Your task to perform on an android device: see sites visited before in the chrome app Image 0: 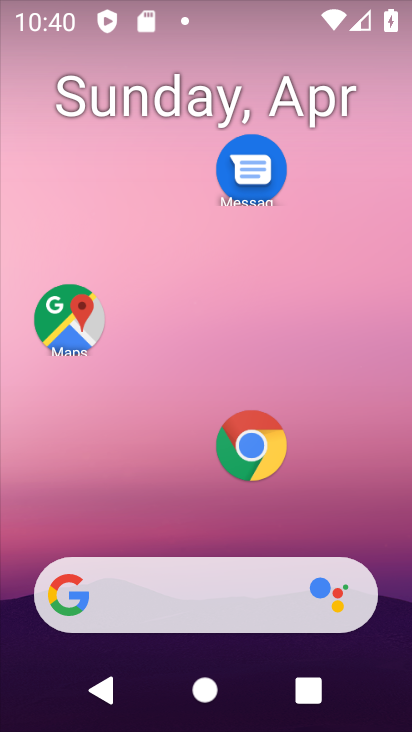
Step 0: drag from (187, 591) to (332, 109)
Your task to perform on an android device: see sites visited before in the chrome app Image 1: 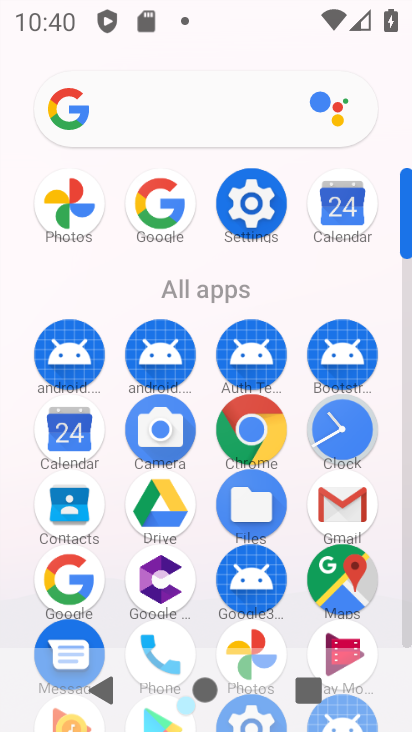
Step 1: click (253, 429)
Your task to perform on an android device: see sites visited before in the chrome app Image 2: 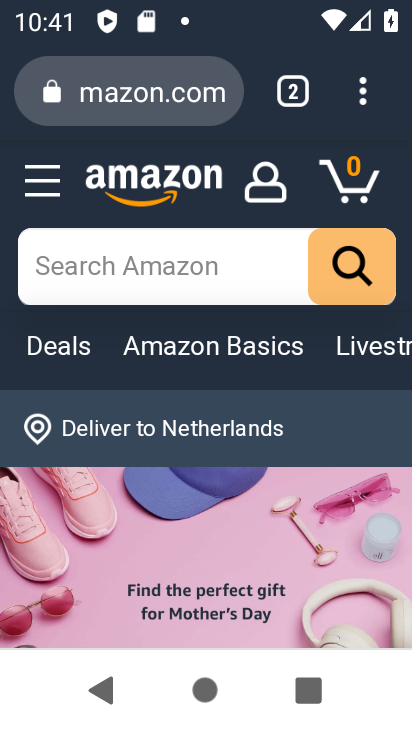
Step 2: task complete